Your task to perform on an android device: set default search engine in the chrome app Image 0: 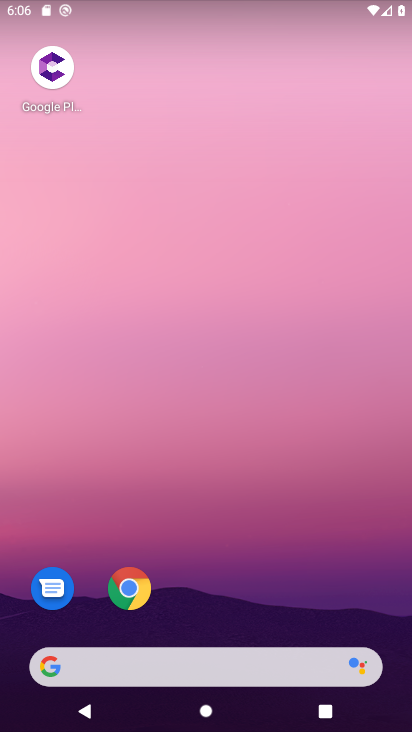
Step 0: drag from (195, 627) to (233, 195)
Your task to perform on an android device: set default search engine in the chrome app Image 1: 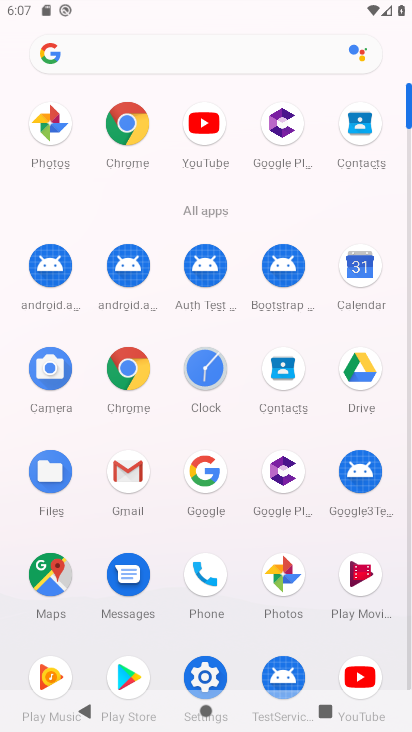
Step 1: click (132, 161)
Your task to perform on an android device: set default search engine in the chrome app Image 2: 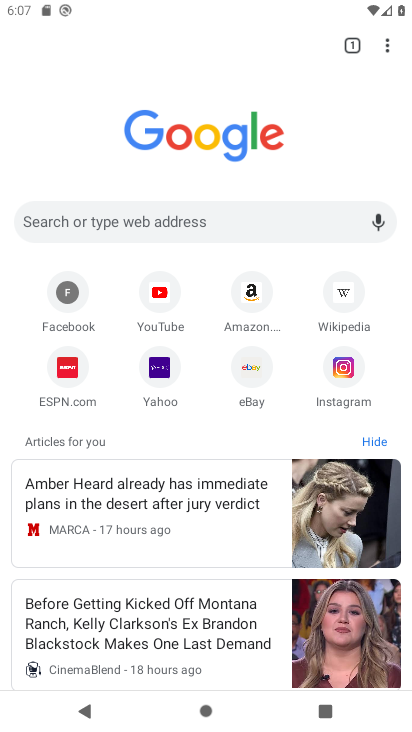
Step 2: click (389, 48)
Your task to perform on an android device: set default search engine in the chrome app Image 3: 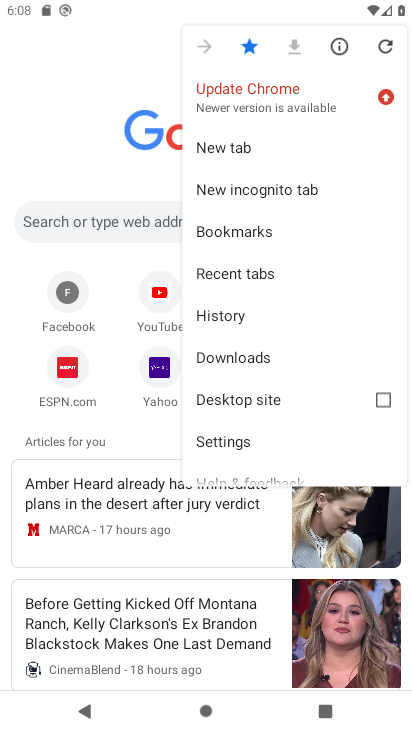
Step 3: drag from (168, 639) to (176, 531)
Your task to perform on an android device: set default search engine in the chrome app Image 4: 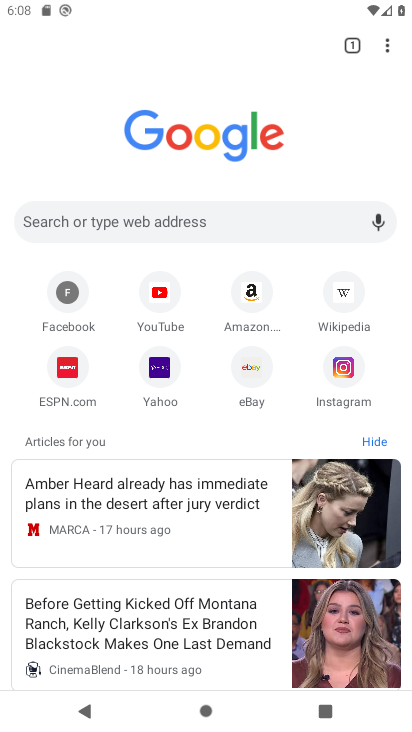
Step 4: click (389, 43)
Your task to perform on an android device: set default search engine in the chrome app Image 5: 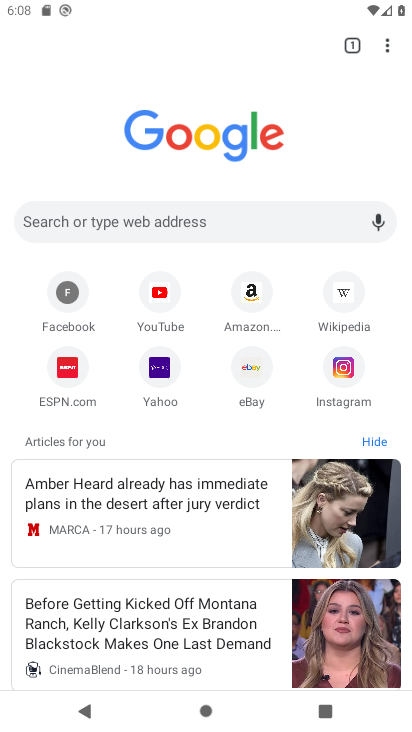
Step 5: click (391, 50)
Your task to perform on an android device: set default search engine in the chrome app Image 6: 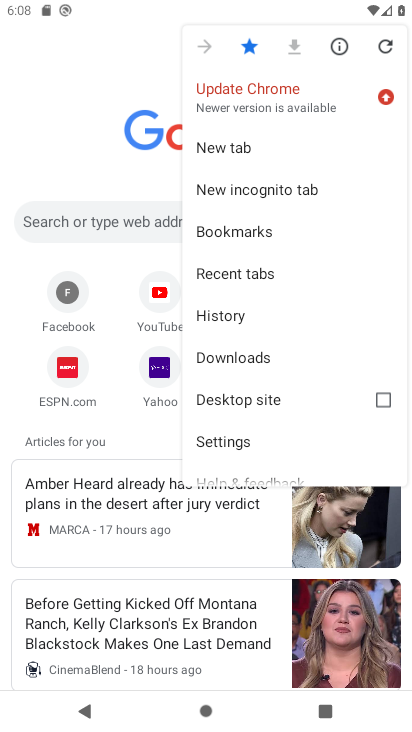
Step 6: click (231, 446)
Your task to perform on an android device: set default search engine in the chrome app Image 7: 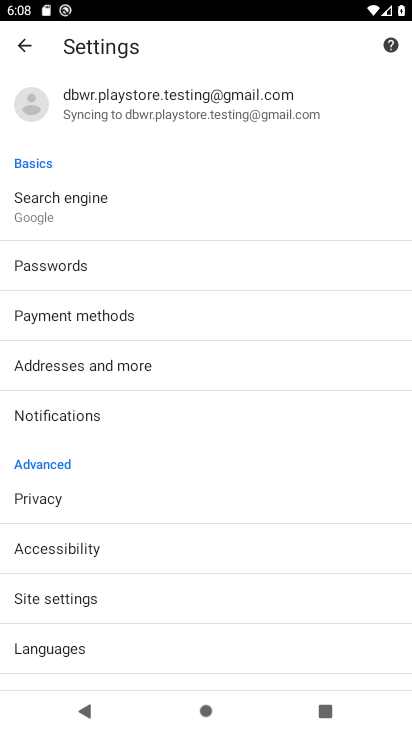
Step 7: click (51, 205)
Your task to perform on an android device: set default search engine in the chrome app Image 8: 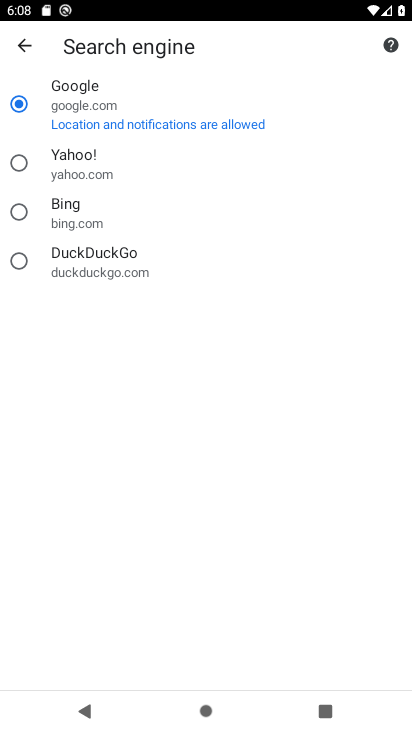
Step 8: click (43, 214)
Your task to perform on an android device: set default search engine in the chrome app Image 9: 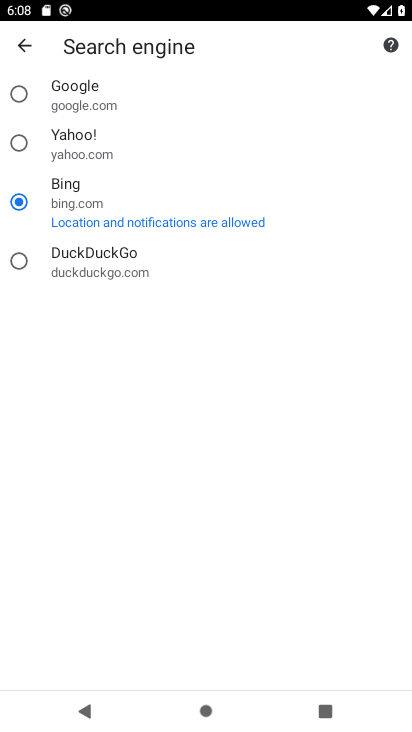
Step 9: task complete